Your task to perform on an android device: When is my next appointment? Image 0: 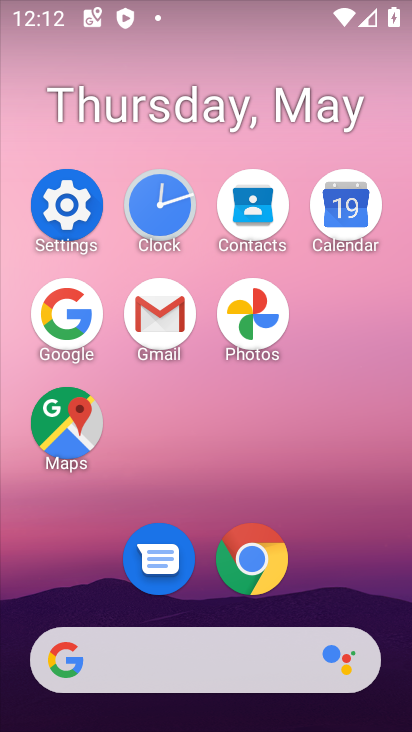
Step 0: click (338, 211)
Your task to perform on an android device: When is my next appointment? Image 1: 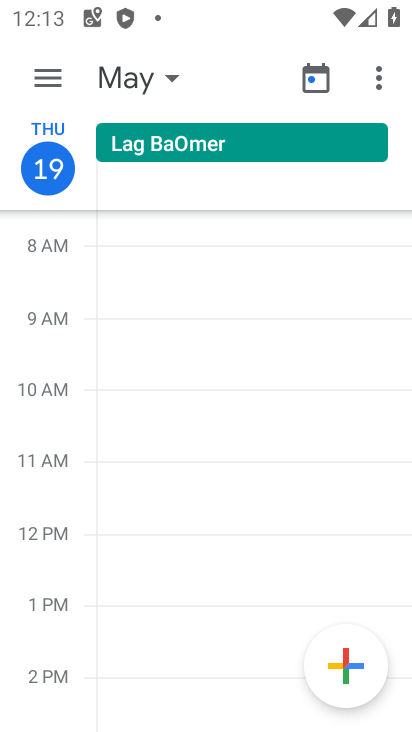
Step 1: click (31, 156)
Your task to perform on an android device: When is my next appointment? Image 2: 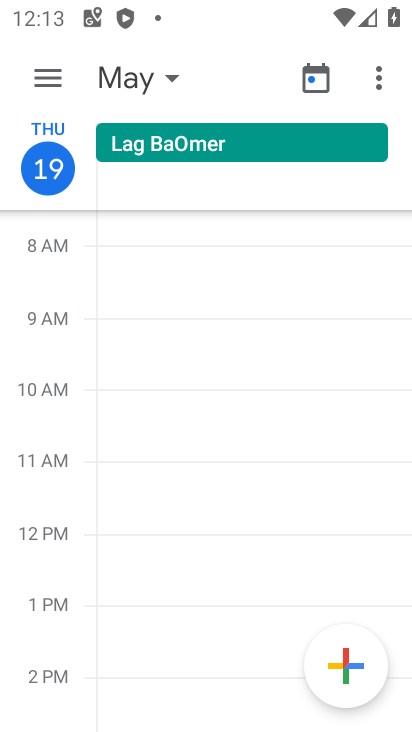
Step 2: drag from (392, 186) to (17, 142)
Your task to perform on an android device: When is my next appointment? Image 3: 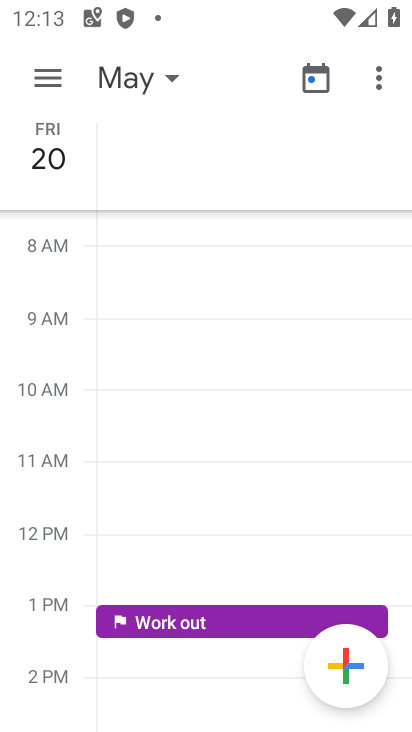
Step 3: click (75, 153)
Your task to perform on an android device: When is my next appointment? Image 4: 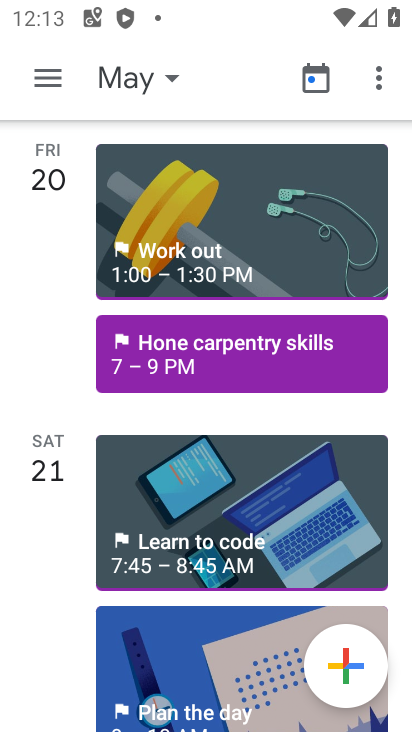
Step 4: task complete